Your task to perform on an android device: Go to Google Image 0: 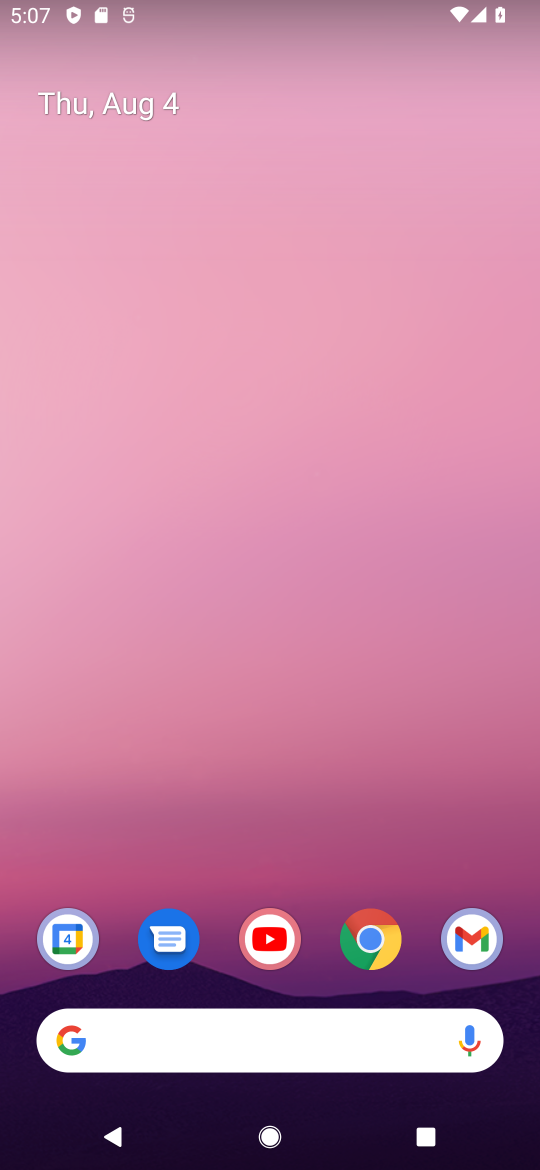
Step 0: drag from (301, 1022) to (364, 565)
Your task to perform on an android device: Go to Google Image 1: 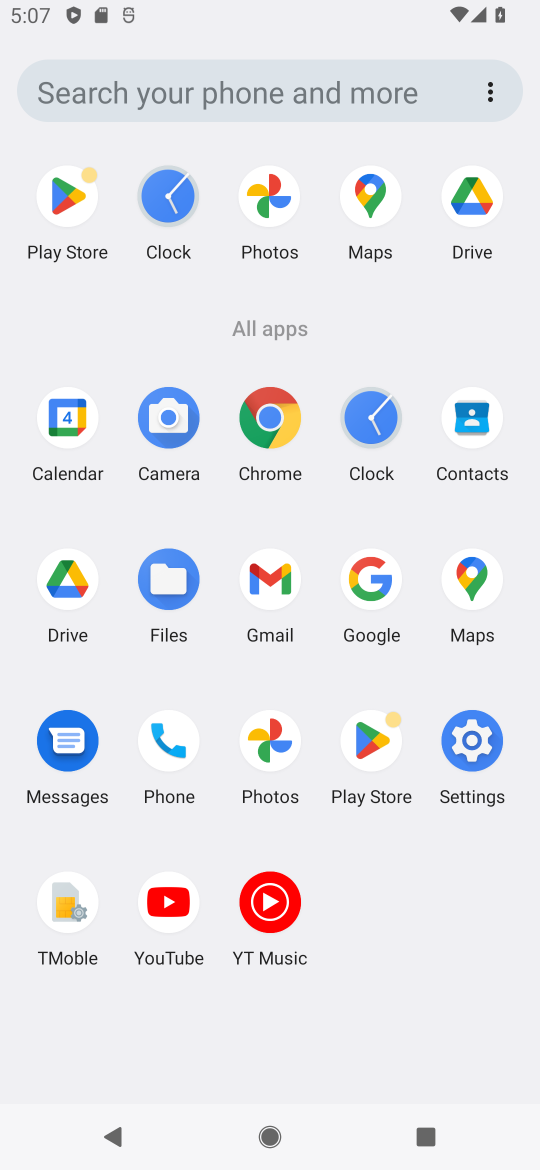
Step 1: click (390, 585)
Your task to perform on an android device: Go to Google Image 2: 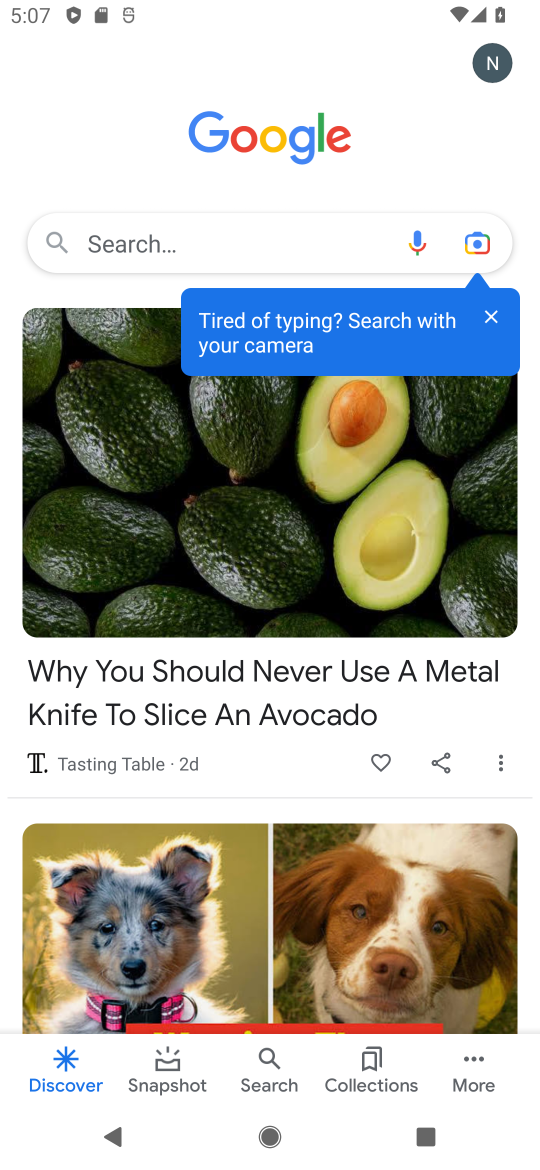
Step 2: task complete